Your task to perform on an android device: Open Google Maps Image 0: 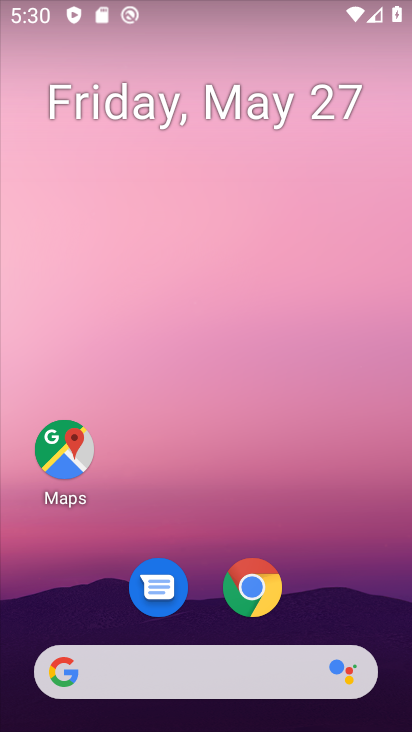
Step 0: drag from (271, 514) to (253, 16)
Your task to perform on an android device: Open Google Maps Image 1: 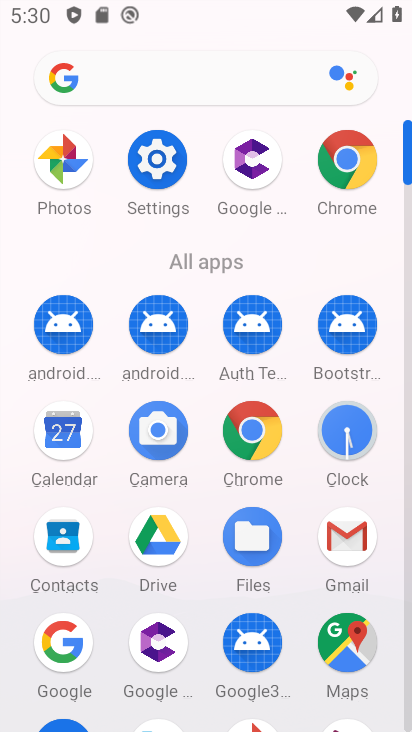
Step 1: click (350, 635)
Your task to perform on an android device: Open Google Maps Image 2: 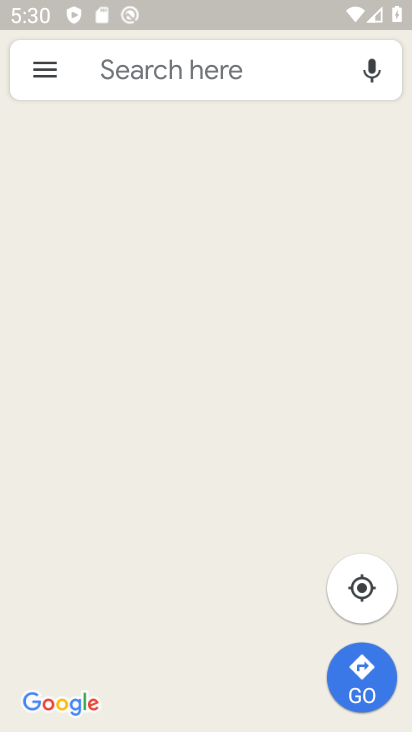
Step 2: task complete